Your task to perform on an android device: turn on the 12-hour format for clock Image 0: 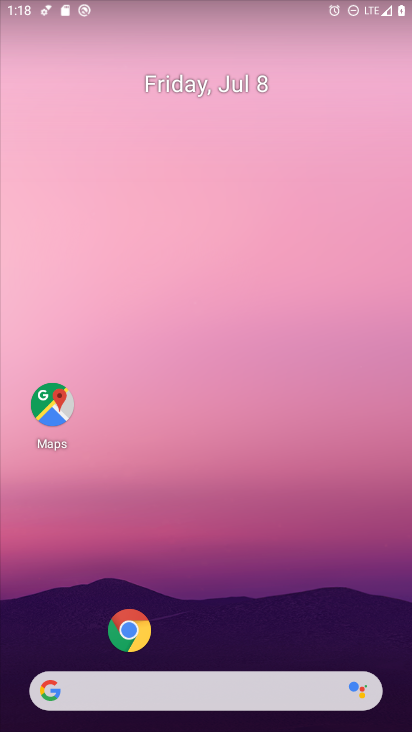
Step 0: click (278, 46)
Your task to perform on an android device: turn on the 12-hour format for clock Image 1: 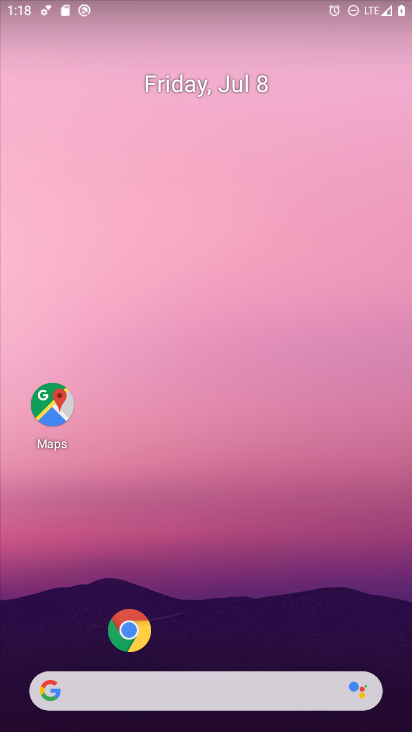
Step 1: drag from (197, 662) to (207, 86)
Your task to perform on an android device: turn on the 12-hour format for clock Image 2: 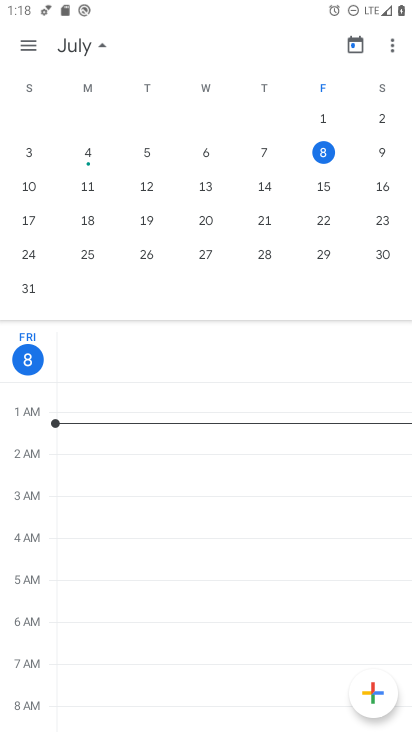
Step 2: press home button
Your task to perform on an android device: turn on the 12-hour format for clock Image 3: 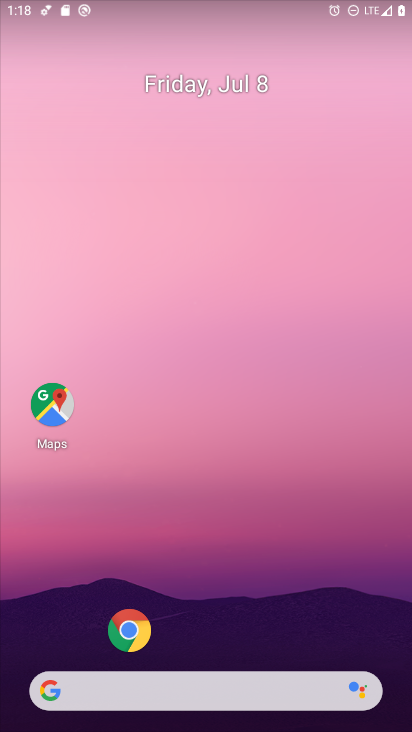
Step 3: drag from (231, 603) to (267, 216)
Your task to perform on an android device: turn on the 12-hour format for clock Image 4: 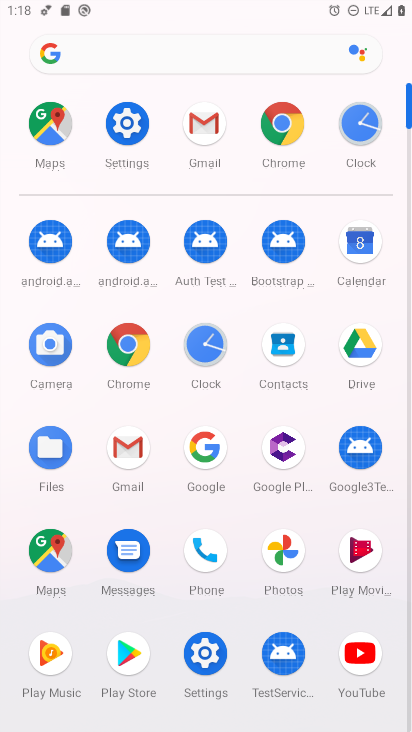
Step 4: click (208, 346)
Your task to perform on an android device: turn on the 12-hour format for clock Image 5: 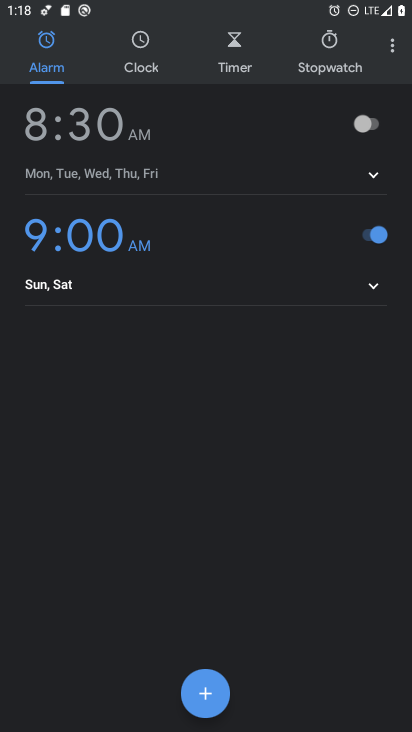
Step 5: click (386, 46)
Your task to perform on an android device: turn on the 12-hour format for clock Image 6: 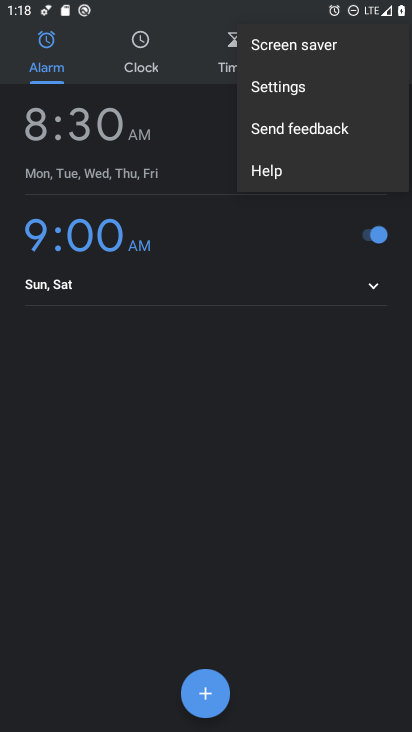
Step 6: click (276, 88)
Your task to perform on an android device: turn on the 12-hour format for clock Image 7: 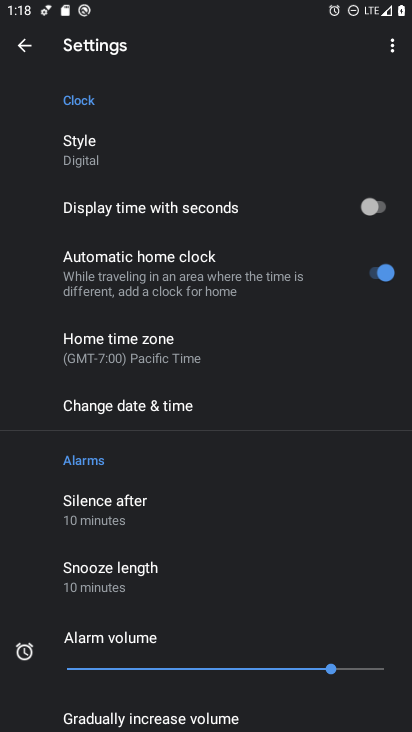
Step 7: click (189, 416)
Your task to perform on an android device: turn on the 12-hour format for clock Image 8: 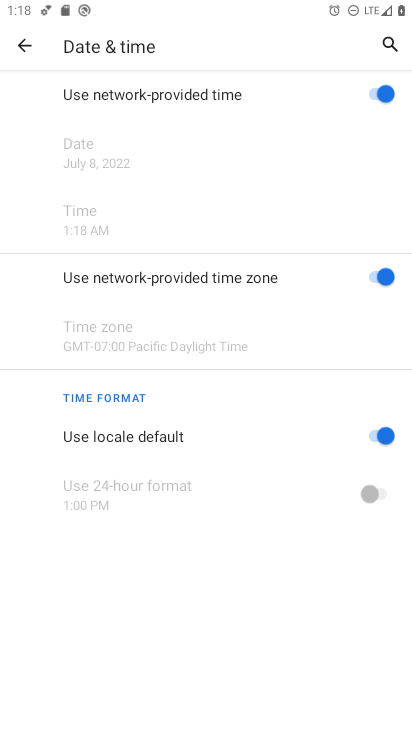
Step 8: click (374, 432)
Your task to perform on an android device: turn on the 12-hour format for clock Image 9: 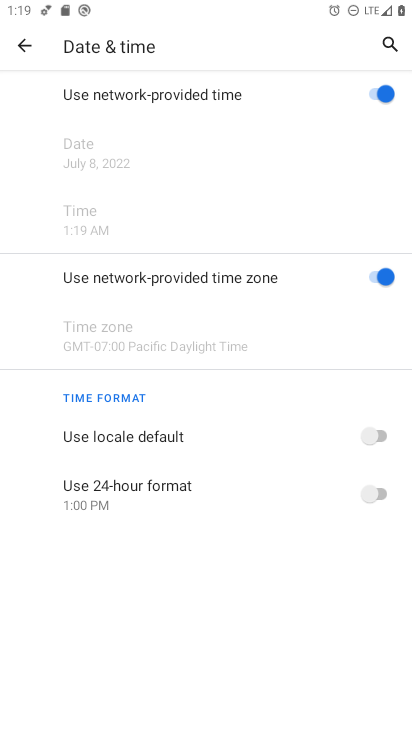
Step 9: task complete